Your task to perform on an android device: Go to Amazon Image 0: 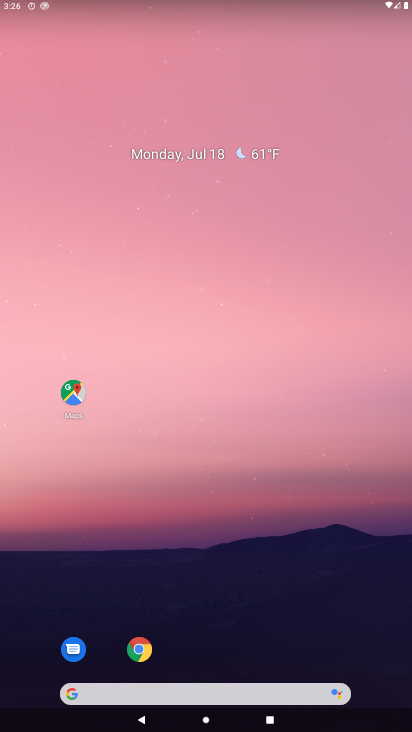
Step 0: click (103, 696)
Your task to perform on an android device: Go to Amazon Image 1: 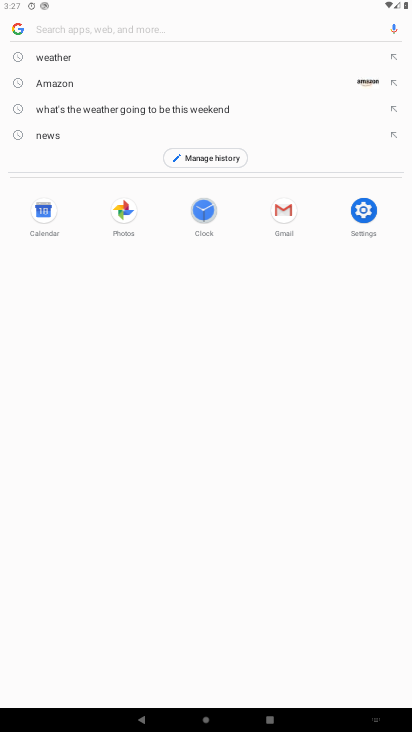
Step 1: type "Amazon"
Your task to perform on an android device: Go to Amazon Image 2: 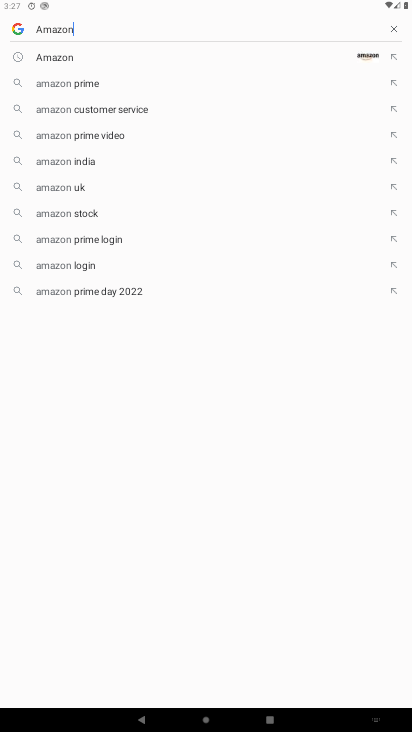
Step 2: click (72, 58)
Your task to perform on an android device: Go to Amazon Image 3: 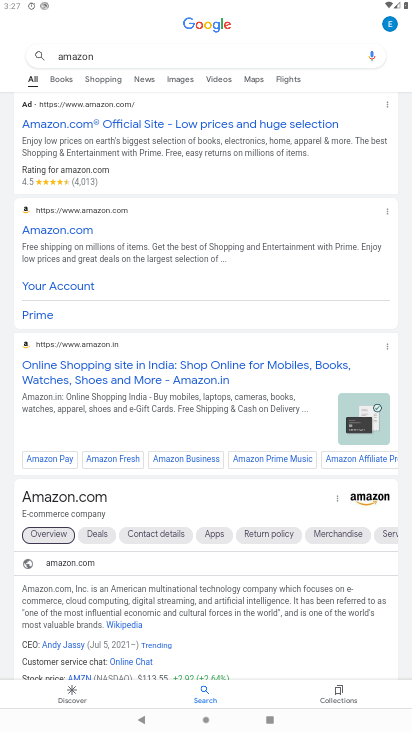
Step 3: task complete